Your task to perform on an android device: See recent photos Image 0: 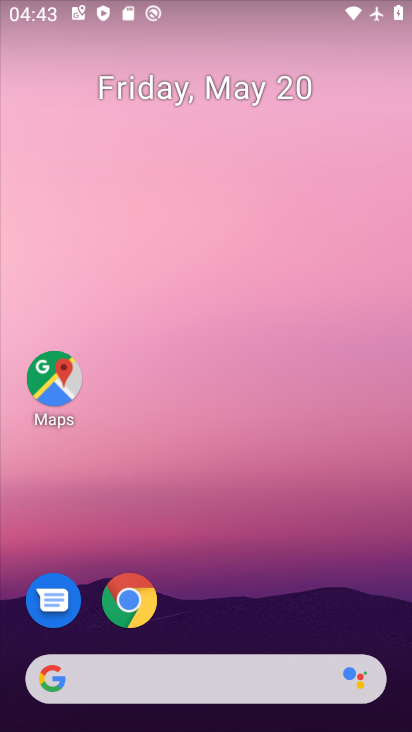
Step 0: drag from (211, 596) to (216, 20)
Your task to perform on an android device: See recent photos Image 1: 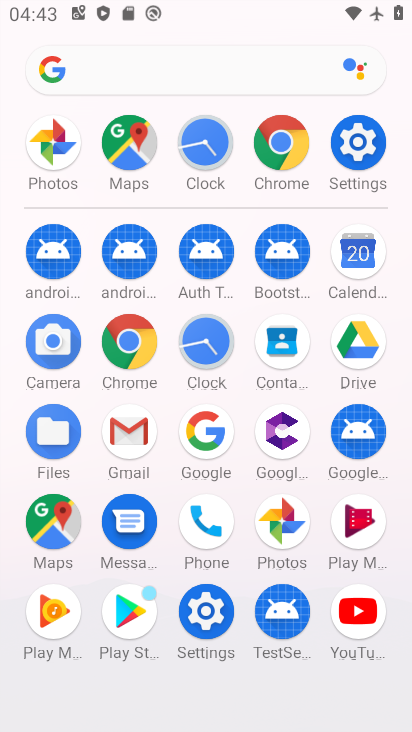
Step 1: click (286, 522)
Your task to perform on an android device: See recent photos Image 2: 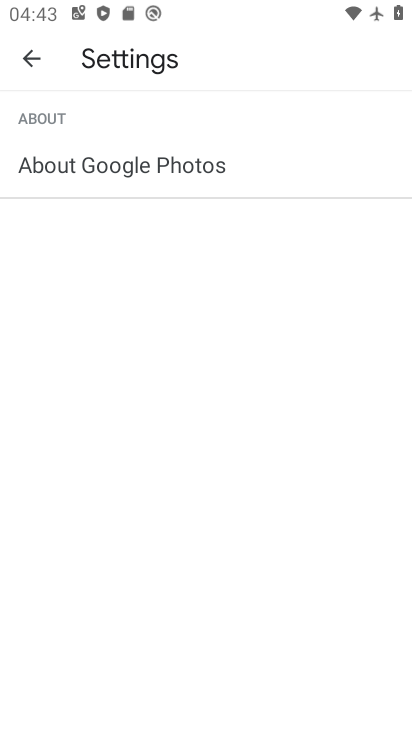
Step 2: click (44, 52)
Your task to perform on an android device: See recent photos Image 3: 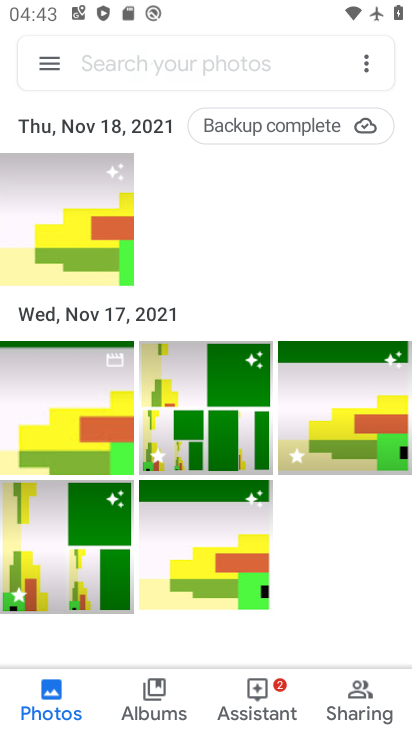
Step 3: task complete